Your task to perform on an android device: Go to Yahoo.com Image 0: 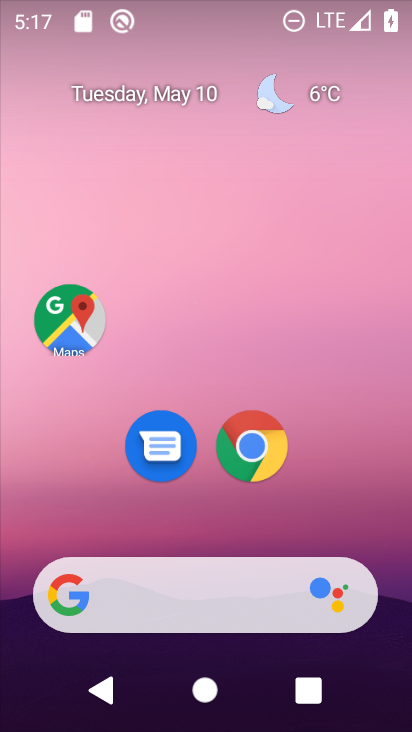
Step 0: click (246, 461)
Your task to perform on an android device: Go to Yahoo.com Image 1: 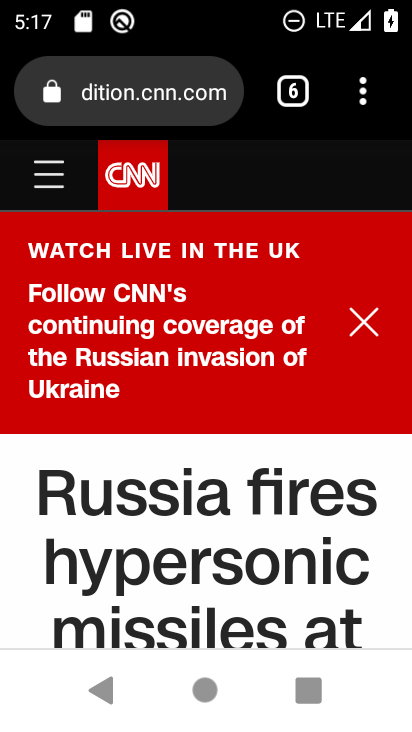
Step 1: click (300, 92)
Your task to perform on an android device: Go to Yahoo.com Image 2: 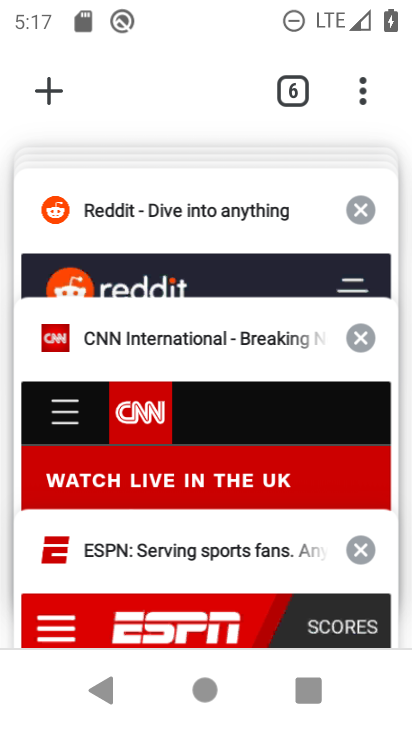
Step 2: click (56, 85)
Your task to perform on an android device: Go to Yahoo.com Image 3: 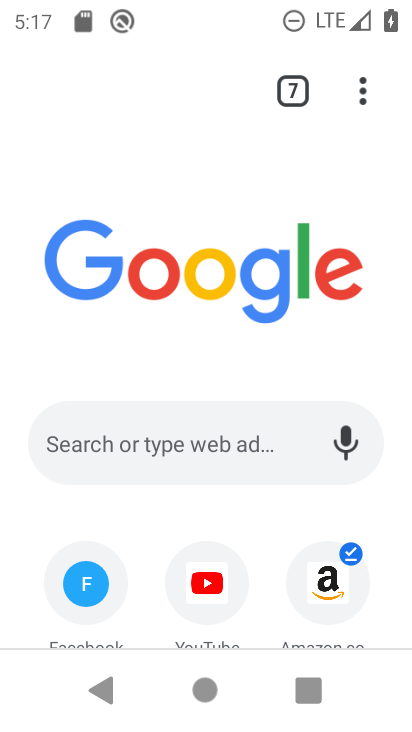
Step 3: drag from (261, 550) to (204, 184)
Your task to perform on an android device: Go to Yahoo.com Image 4: 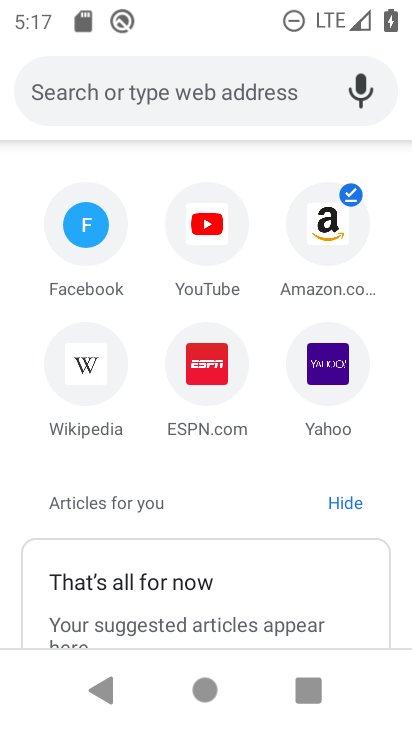
Step 4: click (330, 382)
Your task to perform on an android device: Go to Yahoo.com Image 5: 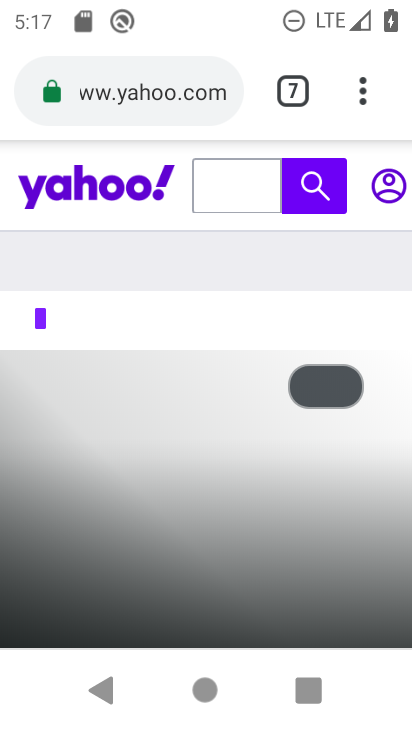
Step 5: task complete